Your task to perform on an android device: empty trash in the gmail app Image 0: 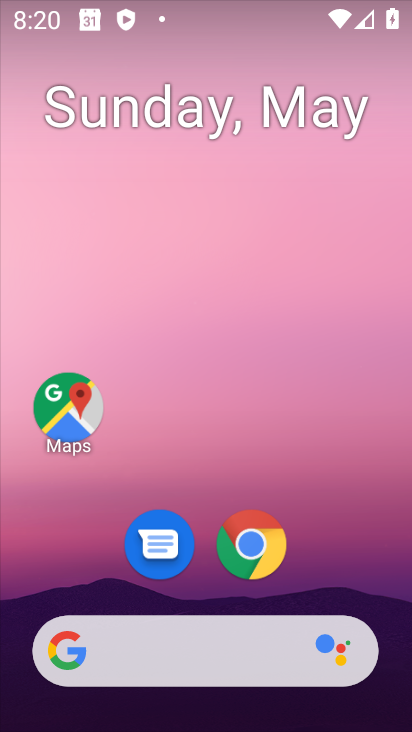
Step 0: drag from (386, 518) to (312, 110)
Your task to perform on an android device: empty trash in the gmail app Image 1: 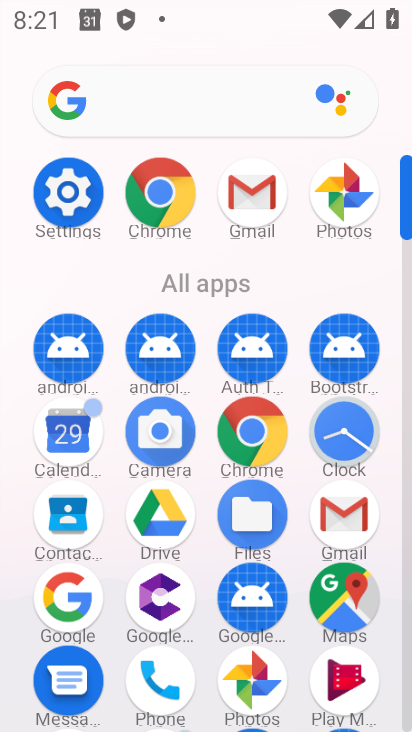
Step 1: click (250, 194)
Your task to perform on an android device: empty trash in the gmail app Image 2: 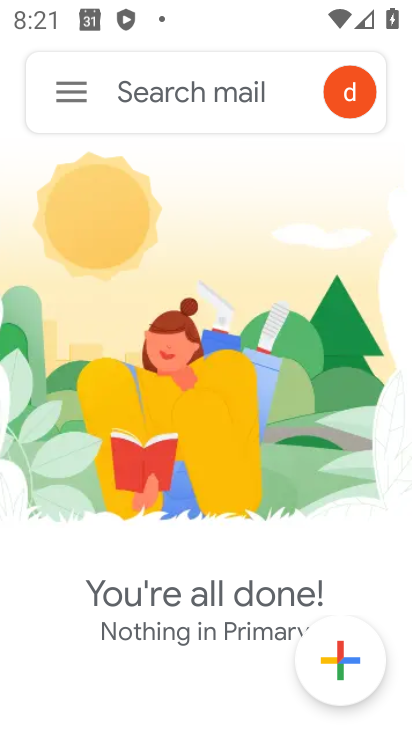
Step 2: click (90, 91)
Your task to perform on an android device: empty trash in the gmail app Image 3: 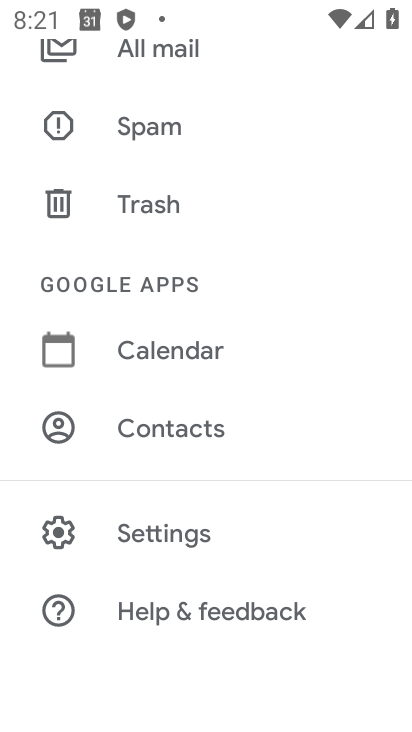
Step 3: click (159, 219)
Your task to perform on an android device: empty trash in the gmail app Image 4: 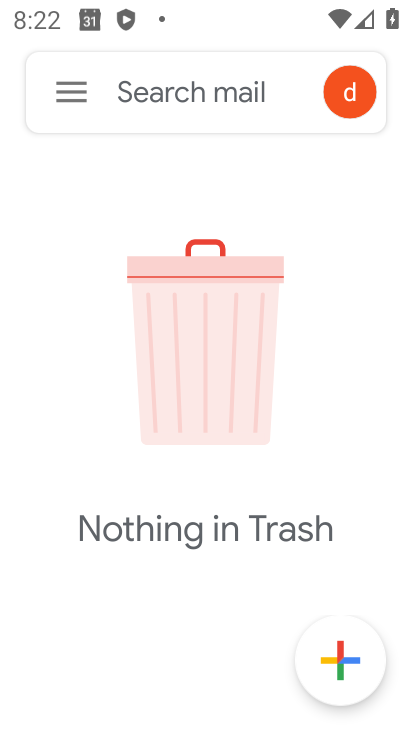
Step 4: click (159, 221)
Your task to perform on an android device: empty trash in the gmail app Image 5: 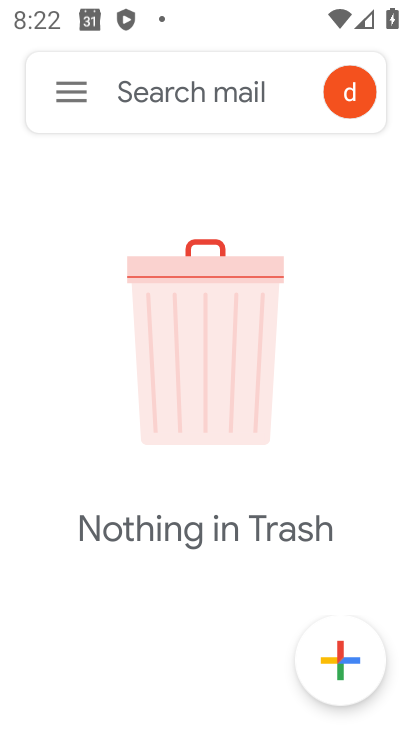
Step 5: click (93, 83)
Your task to perform on an android device: empty trash in the gmail app Image 6: 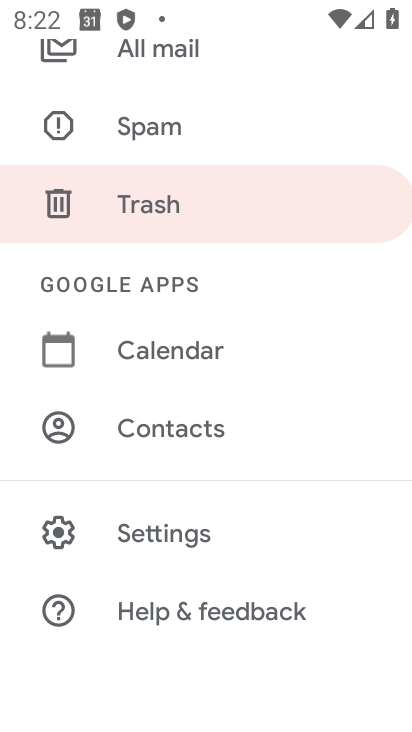
Step 6: task complete